Your task to perform on an android device: Show me productivity apps on the Play Store Image 0: 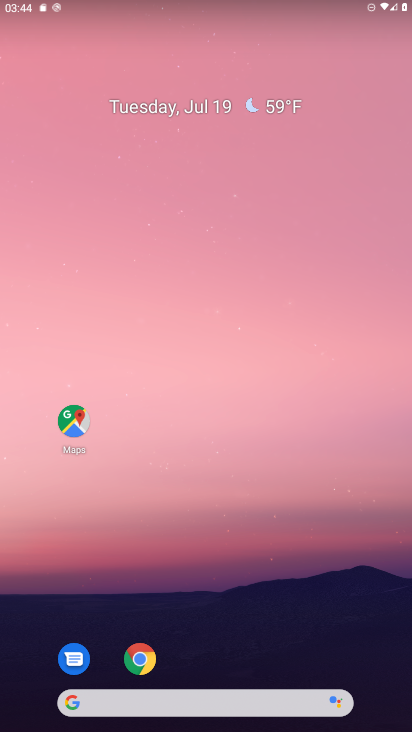
Step 0: drag from (194, 437) to (208, 118)
Your task to perform on an android device: Show me productivity apps on the Play Store Image 1: 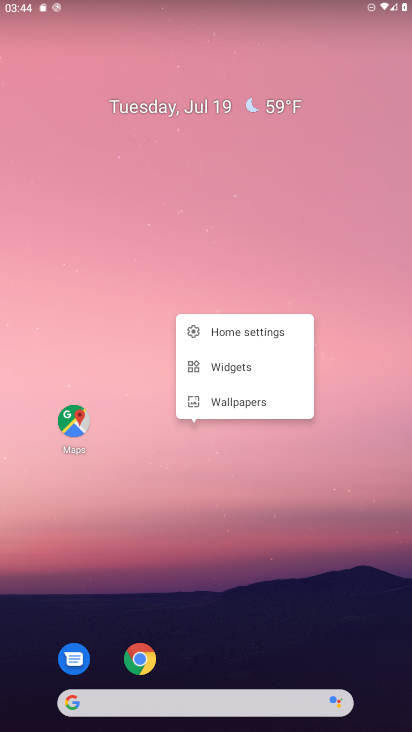
Step 1: drag from (201, 701) to (199, 18)
Your task to perform on an android device: Show me productivity apps on the Play Store Image 2: 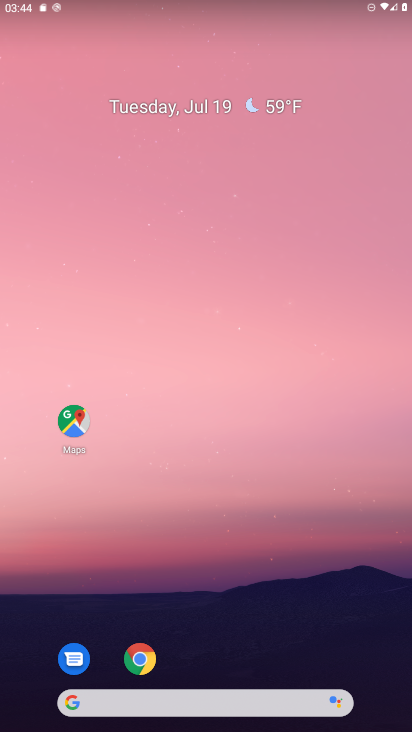
Step 2: drag from (192, 707) to (215, 57)
Your task to perform on an android device: Show me productivity apps on the Play Store Image 3: 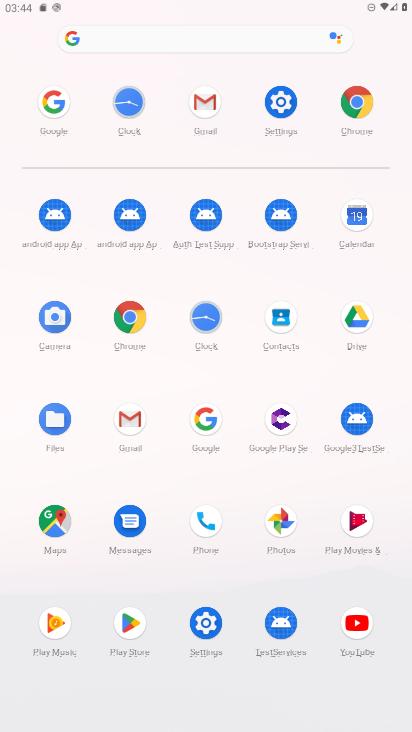
Step 3: click (130, 623)
Your task to perform on an android device: Show me productivity apps on the Play Store Image 4: 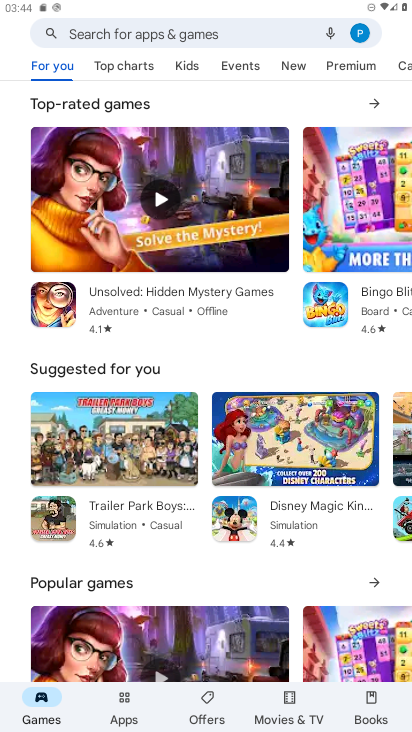
Step 4: click (125, 703)
Your task to perform on an android device: Show me productivity apps on the Play Store Image 5: 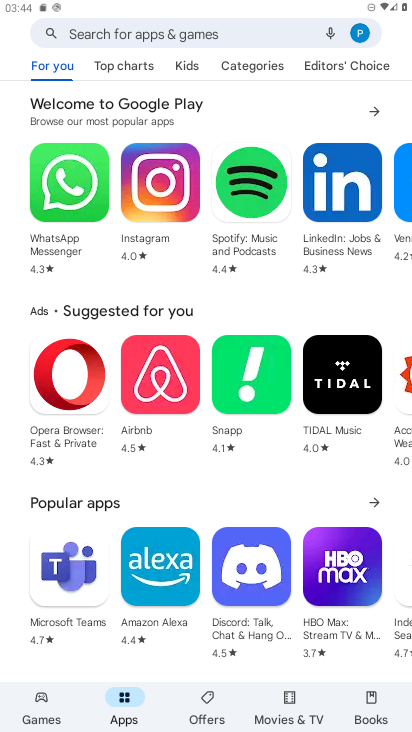
Step 5: click (253, 65)
Your task to perform on an android device: Show me productivity apps on the Play Store Image 6: 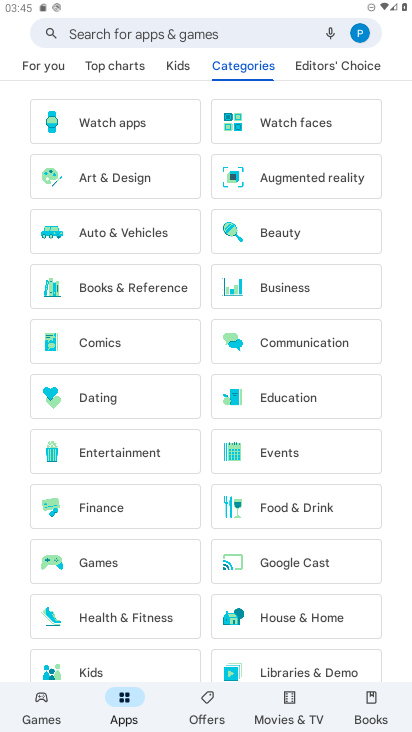
Step 6: drag from (144, 575) to (160, 423)
Your task to perform on an android device: Show me productivity apps on the Play Store Image 7: 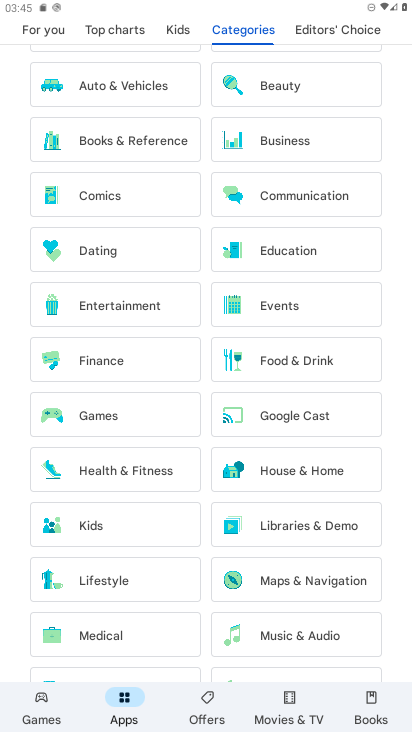
Step 7: drag from (145, 606) to (185, 435)
Your task to perform on an android device: Show me productivity apps on the Play Store Image 8: 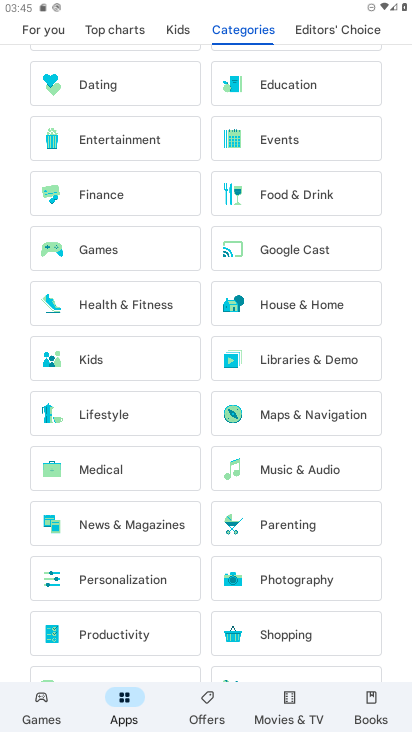
Step 8: click (136, 637)
Your task to perform on an android device: Show me productivity apps on the Play Store Image 9: 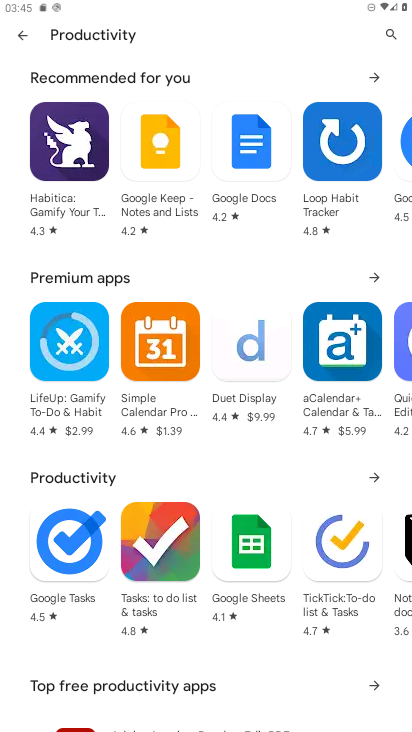
Step 9: task complete